Your task to perform on an android device: delete browsing data in the chrome app Image 0: 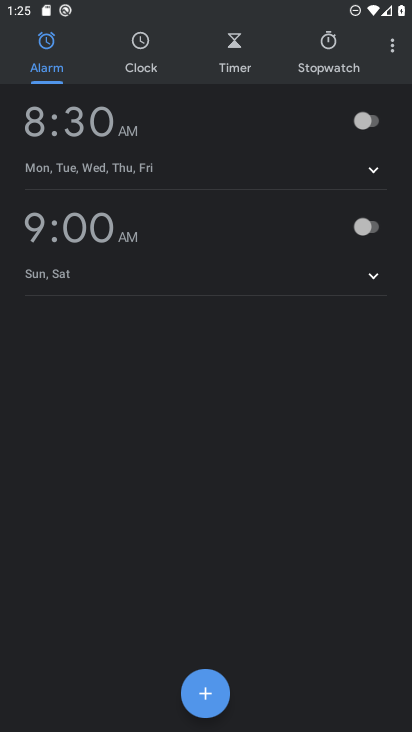
Step 0: press home button
Your task to perform on an android device: delete browsing data in the chrome app Image 1: 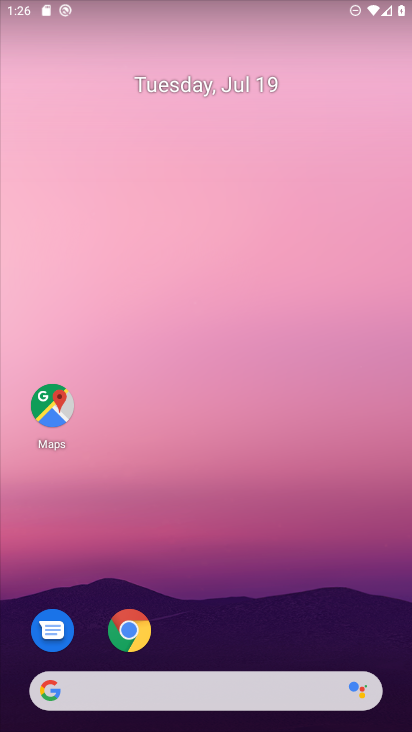
Step 1: click (126, 626)
Your task to perform on an android device: delete browsing data in the chrome app Image 2: 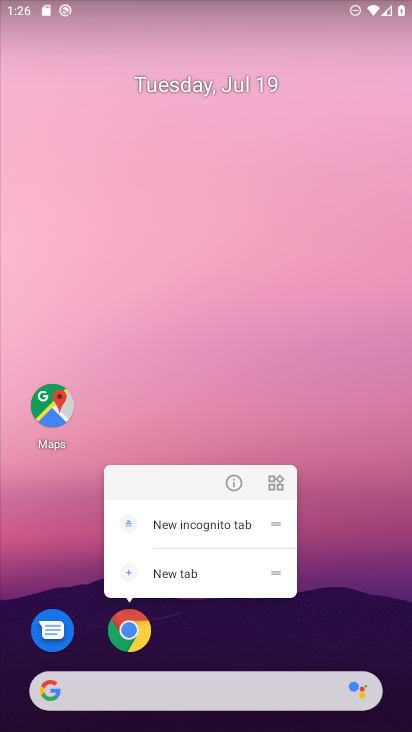
Step 2: click (126, 627)
Your task to perform on an android device: delete browsing data in the chrome app Image 3: 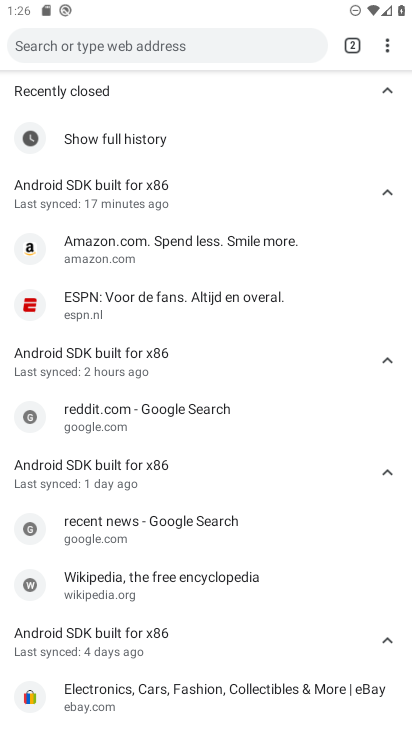
Step 3: drag from (390, 44) to (256, 384)
Your task to perform on an android device: delete browsing data in the chrome app Image 4: 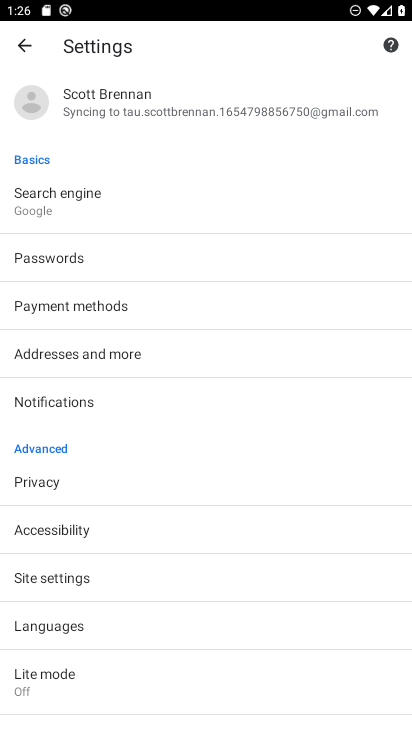
Step 4: click (35, 478)
Your task to perform on an android device: delete browsing data in the chrome app Image 5: 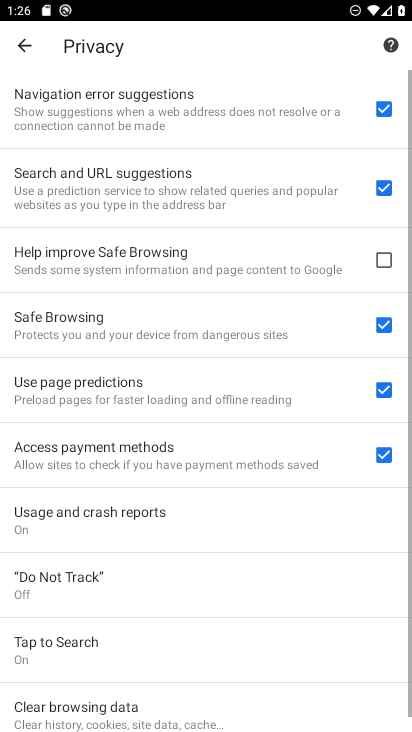
Step 5: drag from (150, 620) to (293, 150)
Your task to perform on an android device: delete browsing data in the chrome app Image 6: 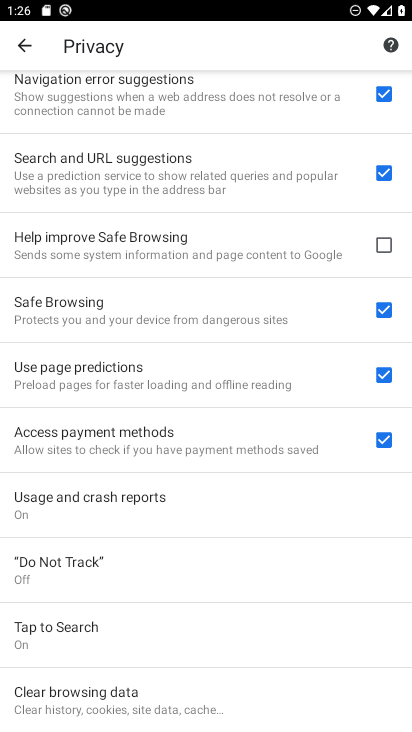
Step 6: click (131, 689)
Your task to perform on an android device: delete browsing data in the chrome app Image 7: 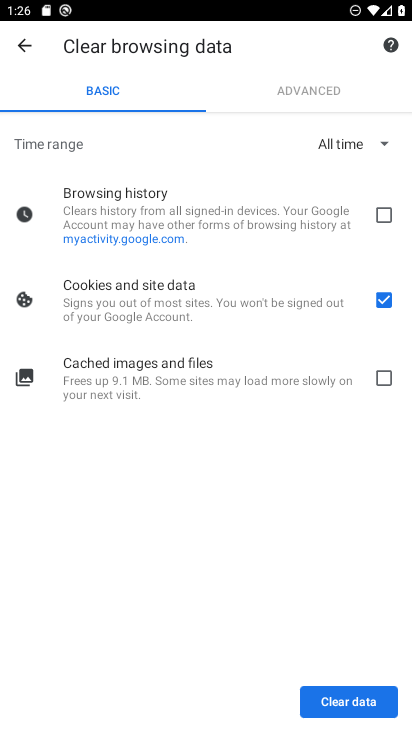
Step 7: click (385, 213)
Your task to perform on an android device: delete browsing data in the chrome app Image 8: 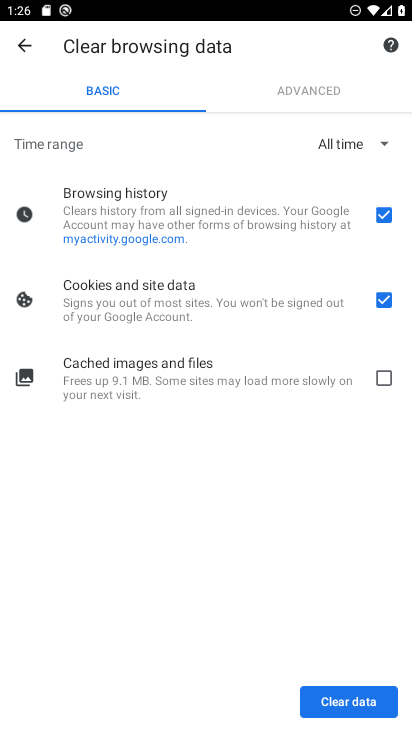
Step 8: click (379, 383)
Your task to perform on an android device: delete browsing data in the chrome app Image 9: 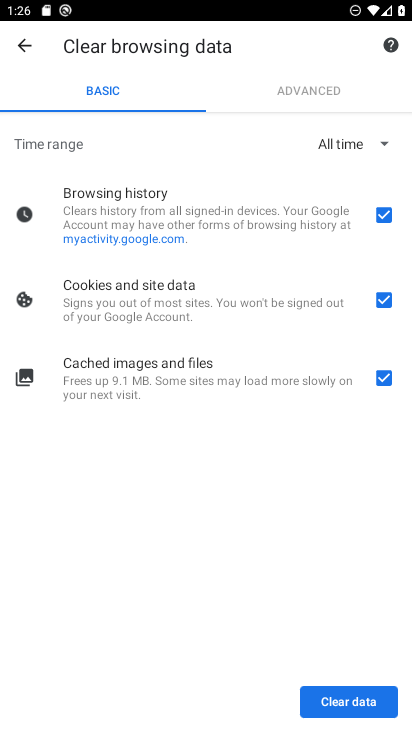
Step 9: click (346, 691)
Your task to perform on an android device: delete browsing data in the chrome app Image 10: 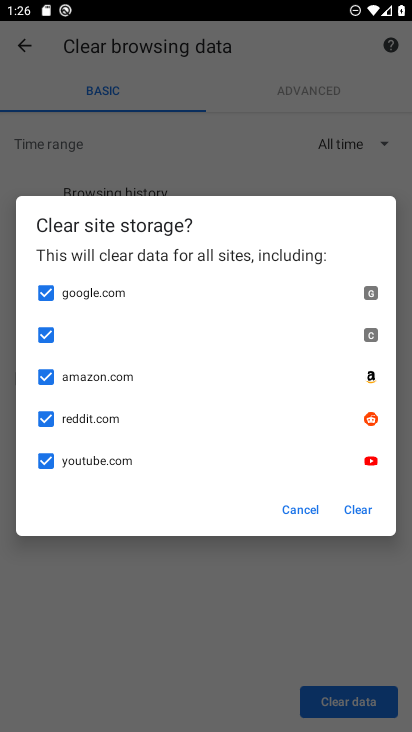
Step 10: click (354, 515)
Your task to perform on an android device: delete browsing data in the chrome app Image 11: 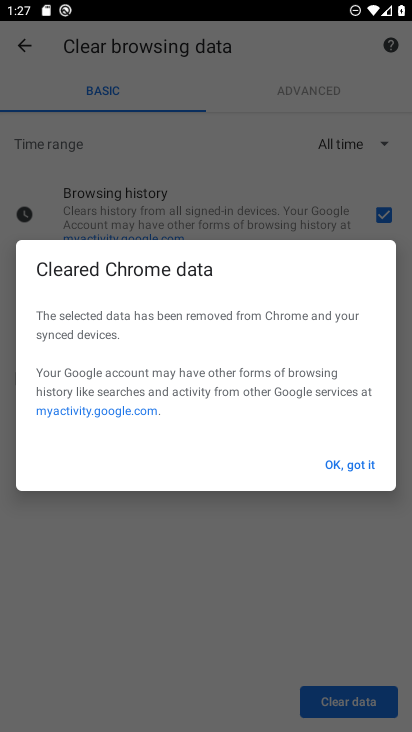
Step 11: click (350, 466)
Your task to perform on an android device: delete browsing data in the chrome app Image 12: 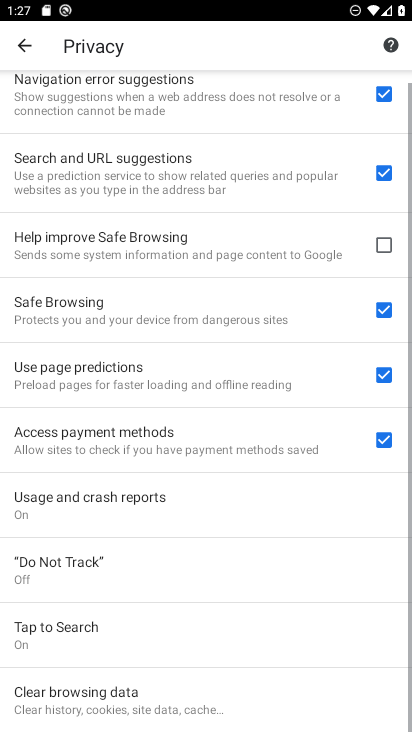
Step 12: task complete